Your task to perform on an android device: toggle sleep mode Image 0: 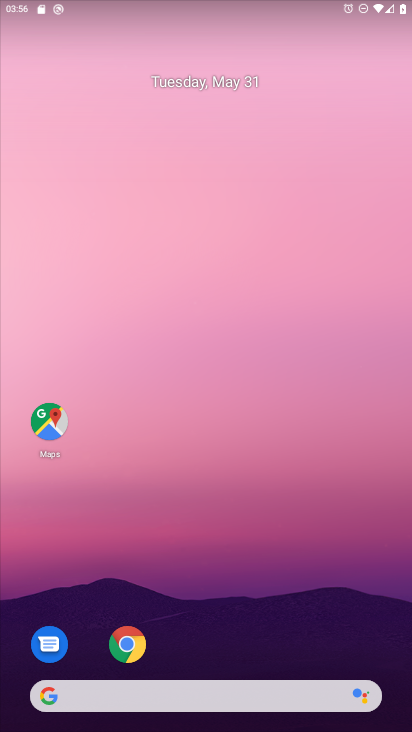
Step 0: drag from (291, 612) to (243, 56)
Your task to perform on an android device: toggle sleep mode Image 1: 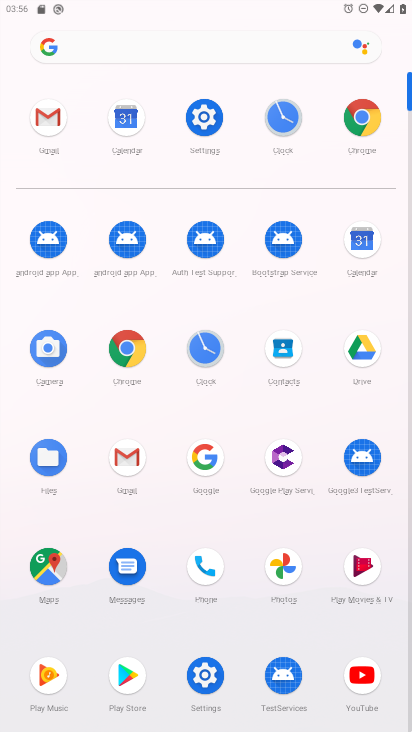
Step 1: click (204, 118)
Your task to perform on an android device: toggle sleep mode Image 2: 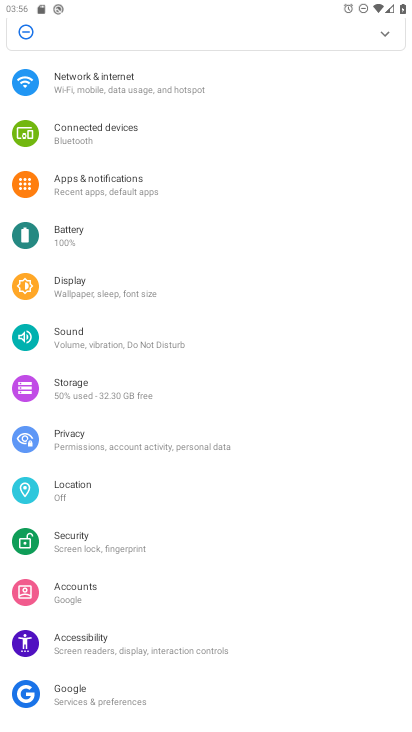
Step 2: click (96, 293)
Your task to perform on an android device: toggle sleep mode Image 3: 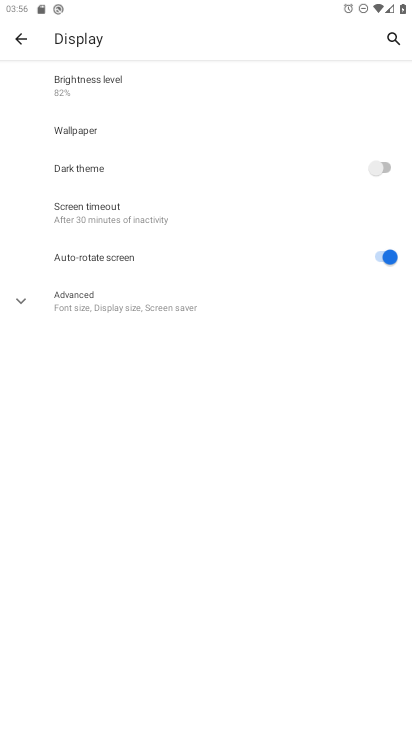
Step 3: click (133, 208)
Your task to perform on an android device: toggle sleep mode Image 4: 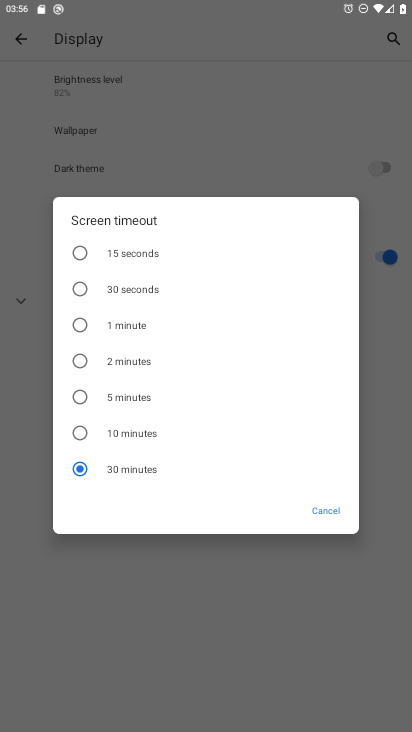
Step 4: click (120, 432)
Your task to perform on an android device: toggle sleep mode Image 5: 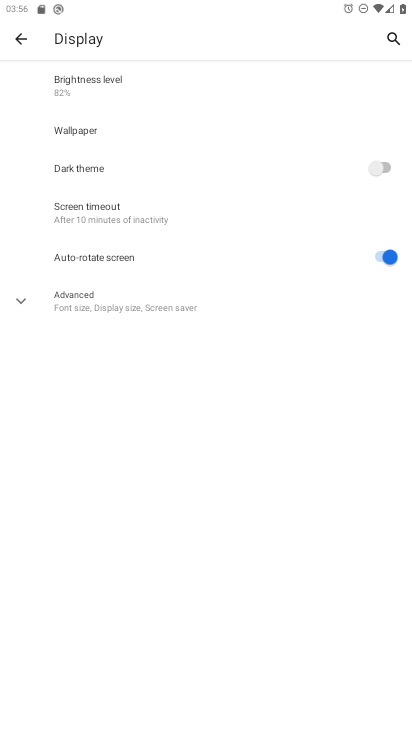
Step 5: task complete